Your task to perform on an android device: move a message to another label in the gmail app Image 0: 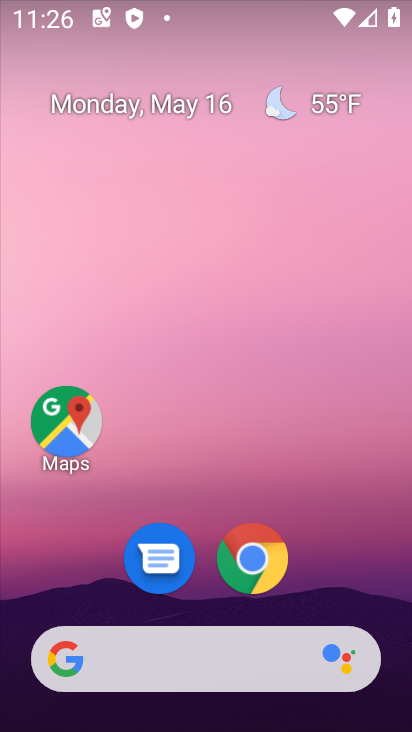
Step 0: drag from (209, 468) to (207, 73)
Your task to perform on an android device: move a message to another label in the gmail app Image 1: 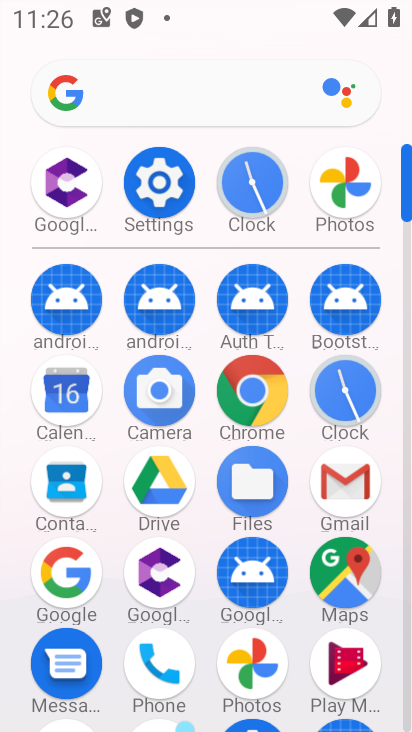
Step 1: click (339, 483)
Your task to perform on an android device: move a message to another label in the gmail app Image 2: 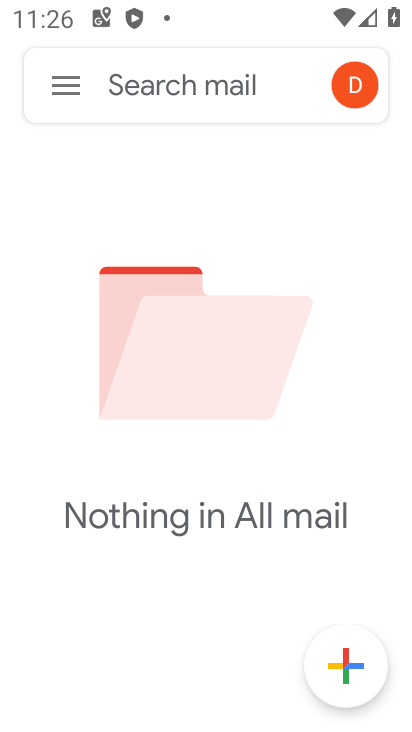
Step 2: click (66, 92)
Your task to perform on an android device: move a message to another label in the gmail app Image 3: 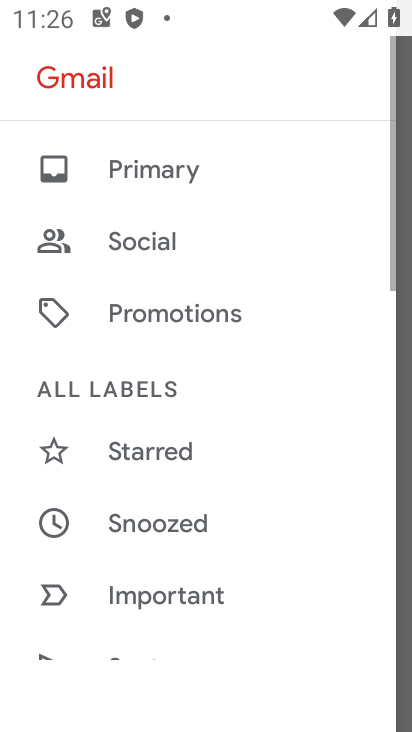
Step 3: drag from (218, 459) to (210, 197)
Your task to perform on an android device: move a message to another label in the gmail app Image 4: 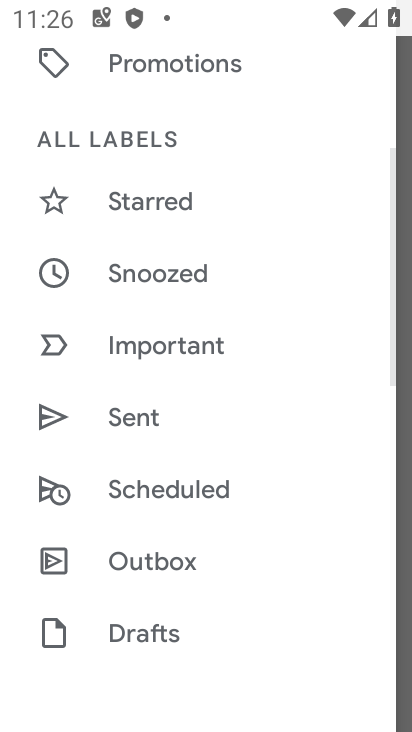
Step 4: drag from (240, 553) to (220, 259)
Your task to perform on an android device: move a message to another label in the gmail app Image 5: 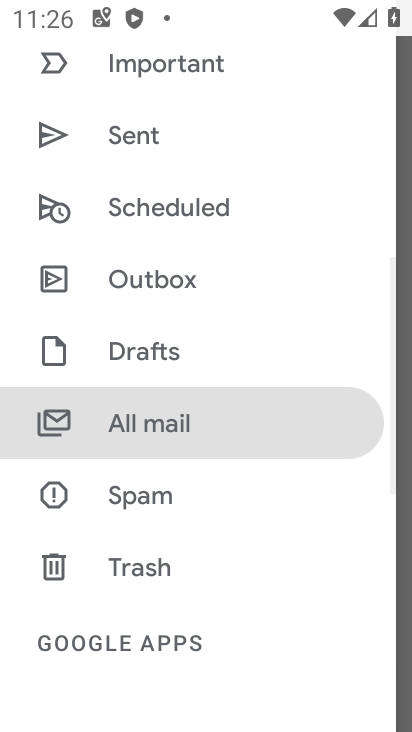
Step 5: click (182, 421)
Your task to perform on an android device: move a message to another label in the gmail app Image 6: 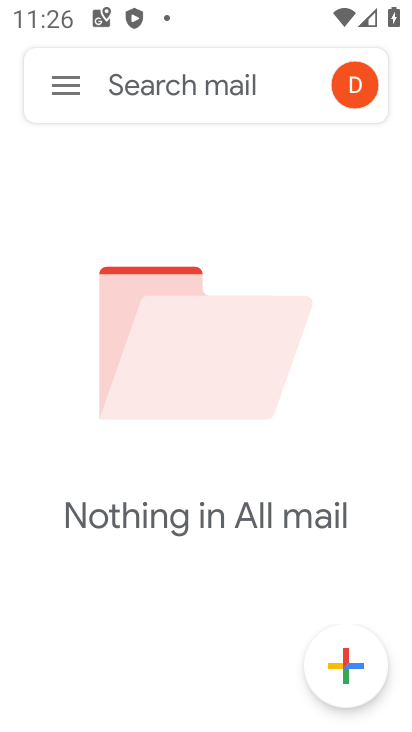
Step 6: task complete